Your task to perform on an android device: Play the last video I watched on Youtube Image 0: 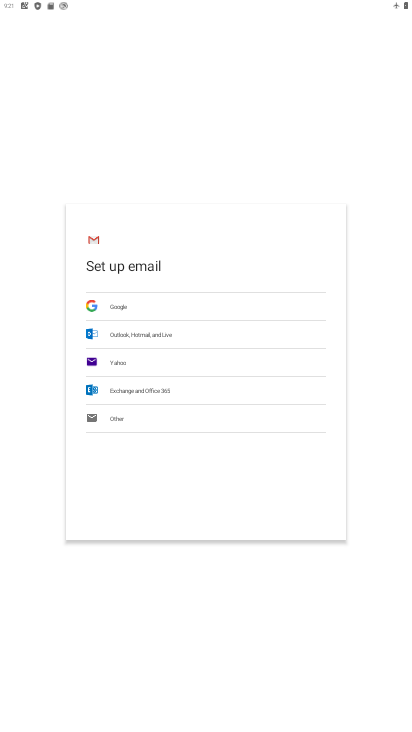
Step 0: press home button
Your task to perform on an android device: Play the last video I watched on Youtube Image 1: 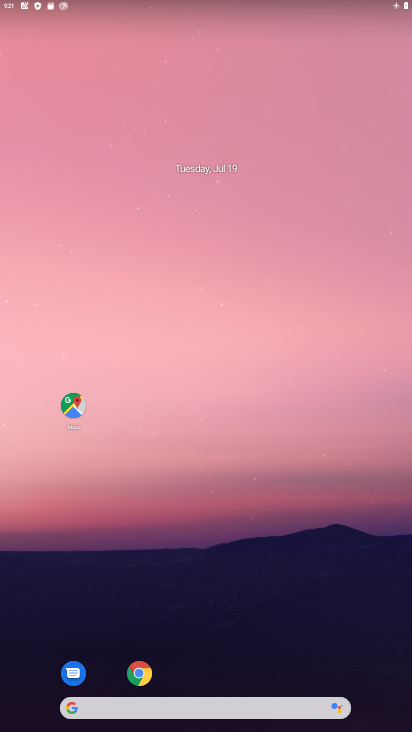
Step 1: drag from (192, 660) to (197, 61)
Your task to perform on an android device: Play the last video I watched on Youtube Image 2: 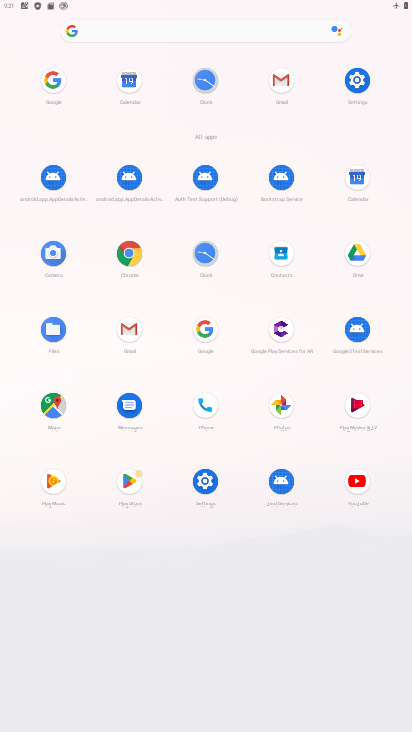
Step 2: click (354, 483)
Your task to perform on an android device: Play the last video I watched on Youtube Image 3: 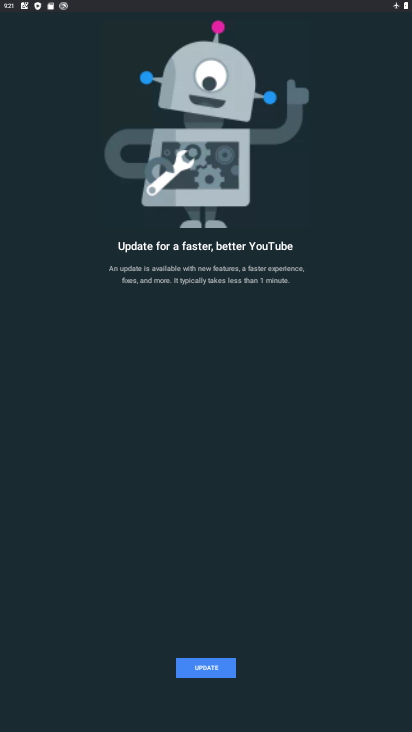
Step 3: click (226, 666)
Your task to perform on an android device: Play the last video I watched on Youtube Image 4: 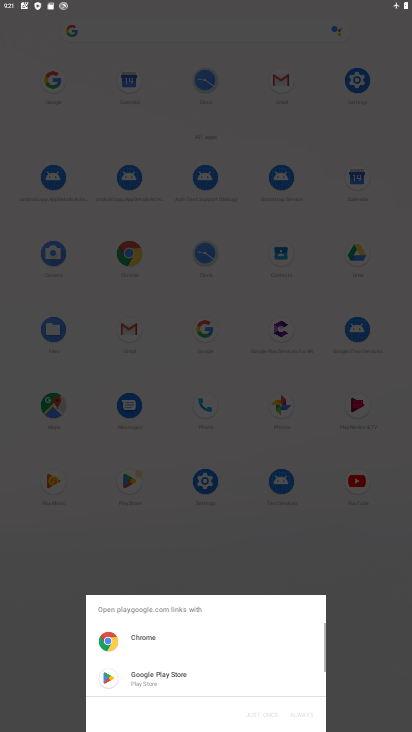
Step 4: click (148, 672)
Your task to perform on an android device: Play the last video I watched on Youtube Image 5: 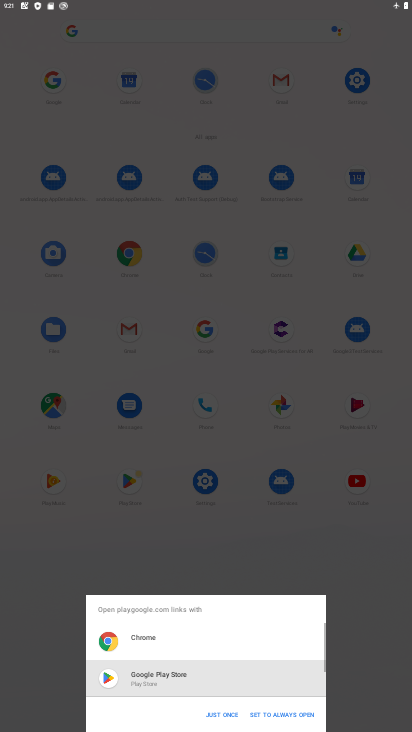
Step 5: click (224, 714)
Your task to perform on an android device: Play the last video I watched on Youtube Image 6: 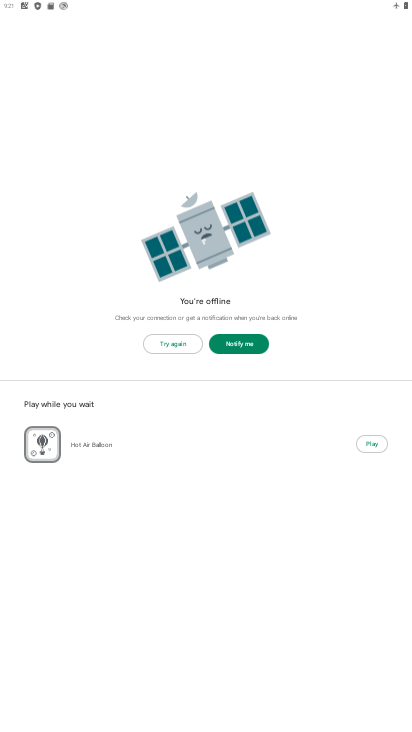
Step 6: task complete